Your task to perform on an android device: Go to Wikipedia Image 0: 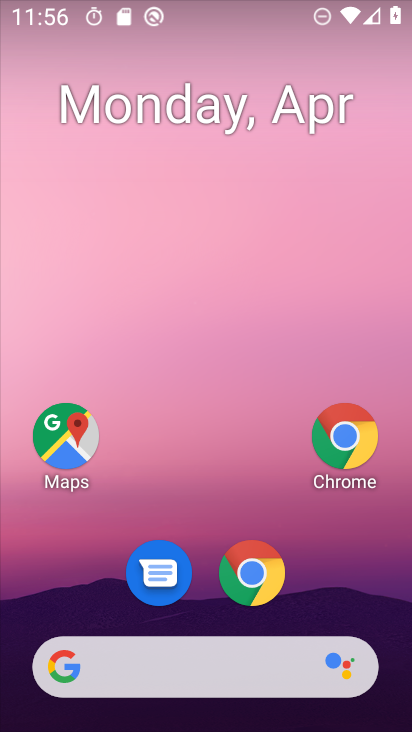
Step 0: drag from (378, 607) to (401, 172)
Your task to perform on an android device: Go to Wikipedia Image 1: 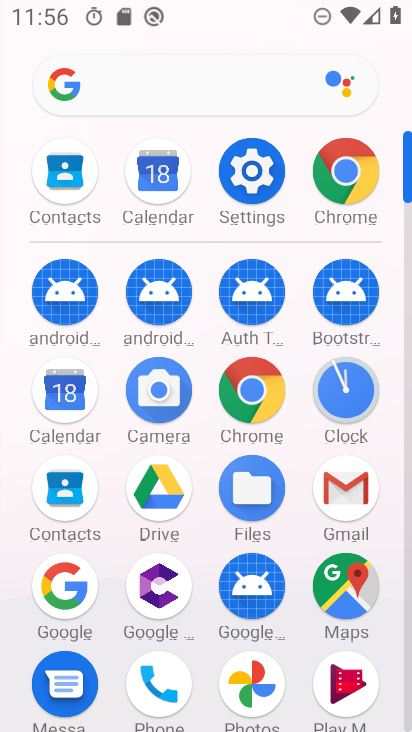
Step 1: click (256, 190)
Your task to perform on an android device: Go to Wikipedia Image 2: 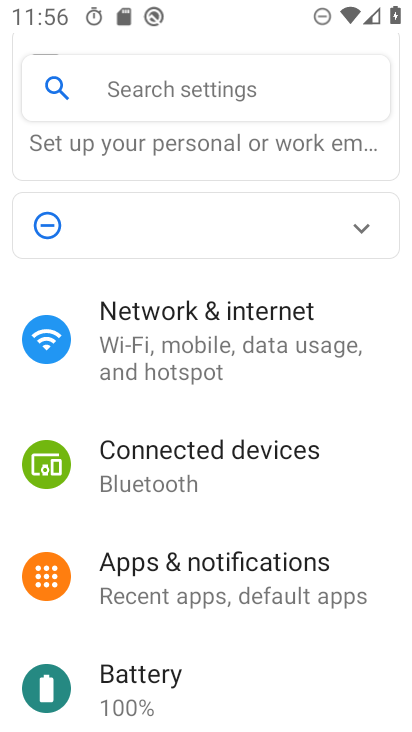
Step 2: drag from (192, 561) to (179, 273)
Your task to perform on an android device: Go to Wikipedia Image 3: 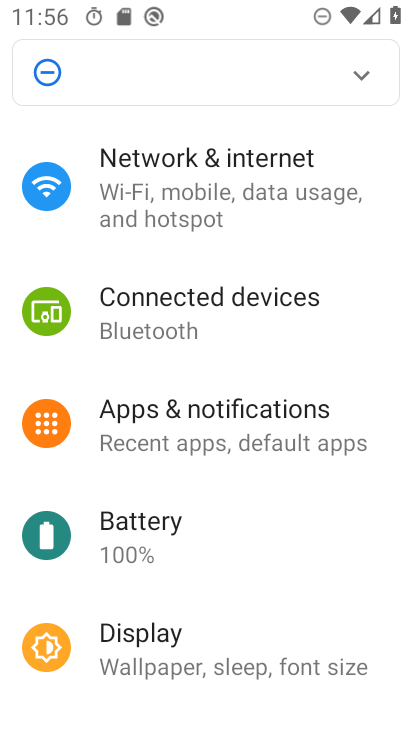
Step 3: drag from (215, 349) to (252, 596)
Your task to perform on an android device: Go to Wikipedia Image 4: 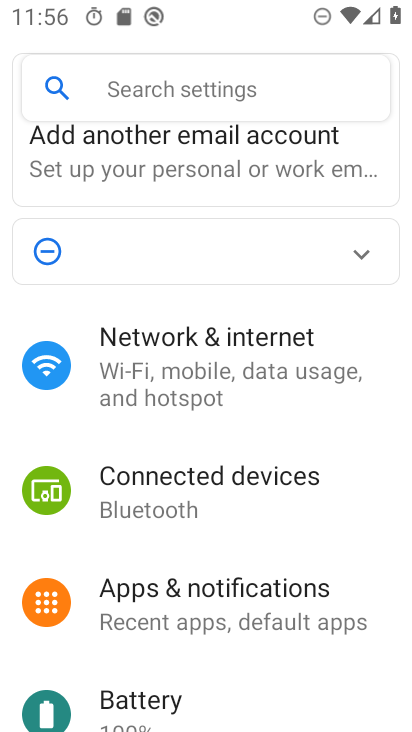
Step 4: press home button
Your task to perform on an android device: Go to Wikipedia Image 5: 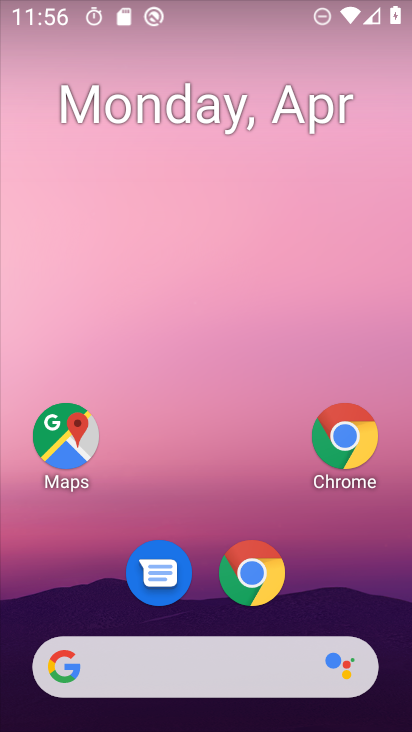
Step 5: click (345, 426)
Your task to perform on an android device: Go to Wikipedia Image 6: 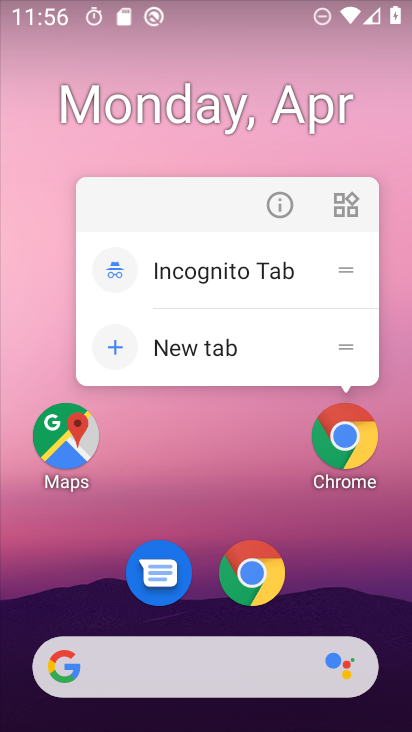
Step 6: click (346, 420)
Your task to perform on an android device: Go to Wikipedia Image 7: 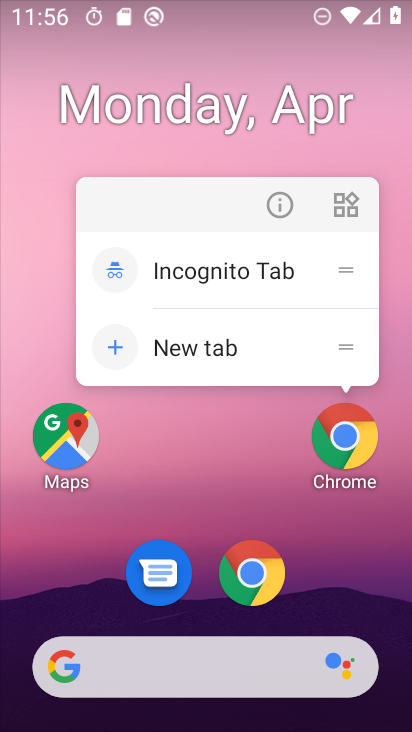
Step 7: click (346, 422)
Your task to perform on an android device: Go to Wikipedia Image 8: 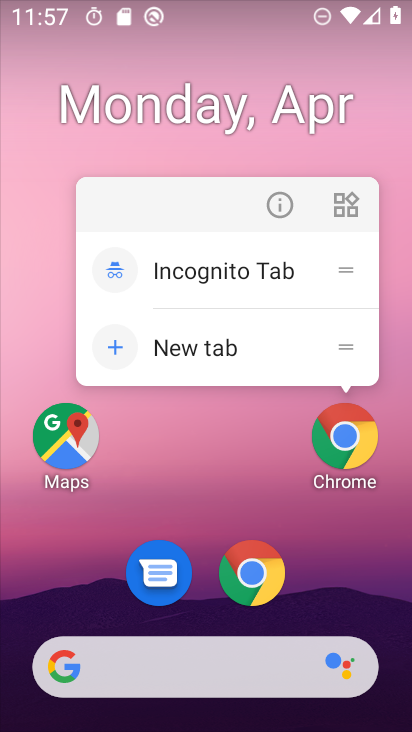
Step 8: click (347, 422)
Your task to perform on an android device: Go to Wikipedia Image 9: 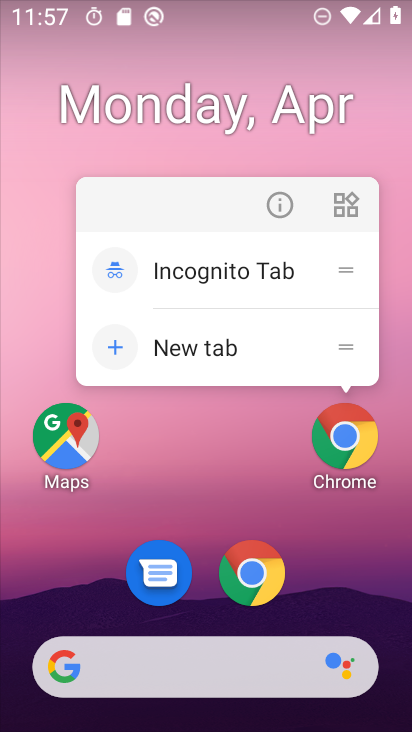
Step 9: click (347, 422)
Your task to perform on an android device: Go to Wikipedia Image 10: 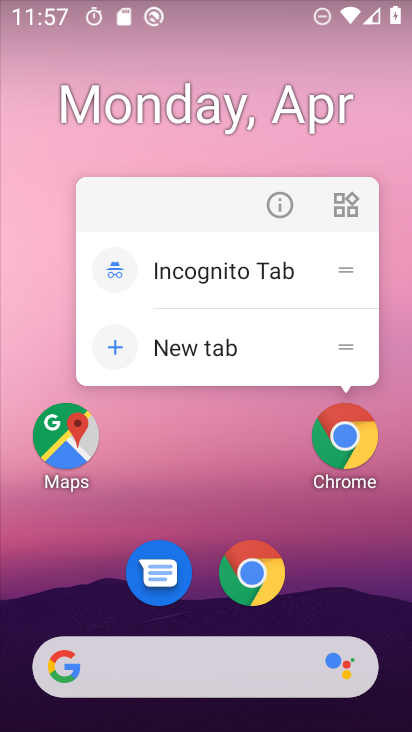
Step 10: click (347, 421)
Your task to perform on an android device: Go to Wikipedia Image 11: 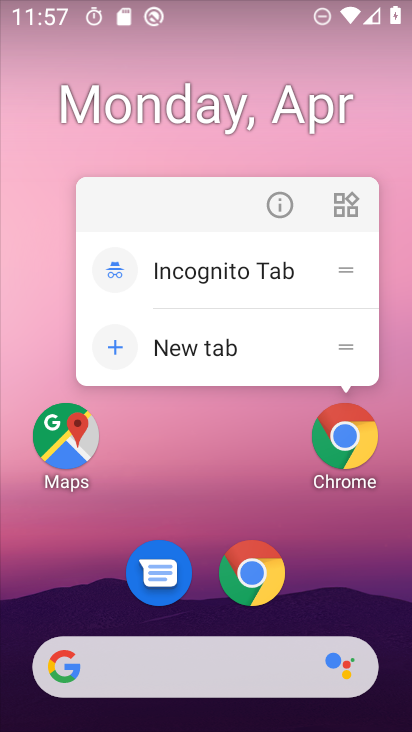
Step 11: click (347, 421)
Your task to perform on an android device: Go to Wikipedia Image 12: 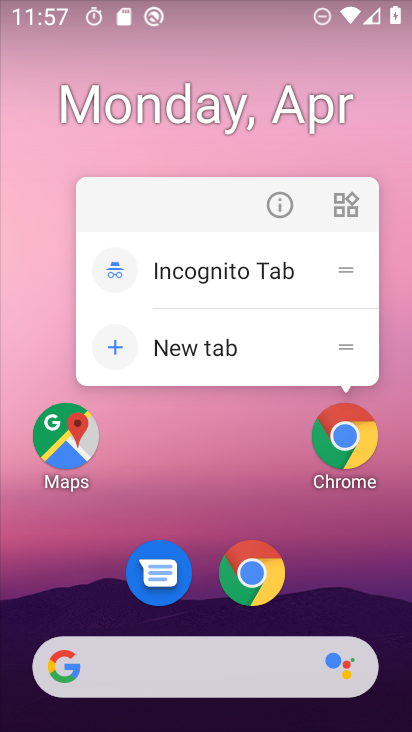
Step 12: click (347, 420)
Your task to perform on an android device: Go to Wikipedia Image 13: 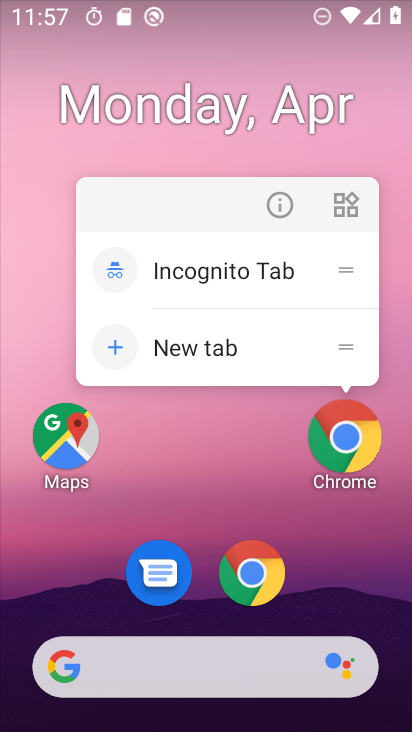
Step 13: click (347, 420)
Your task to perform on an android device: Go to Wikipedia Image 14: 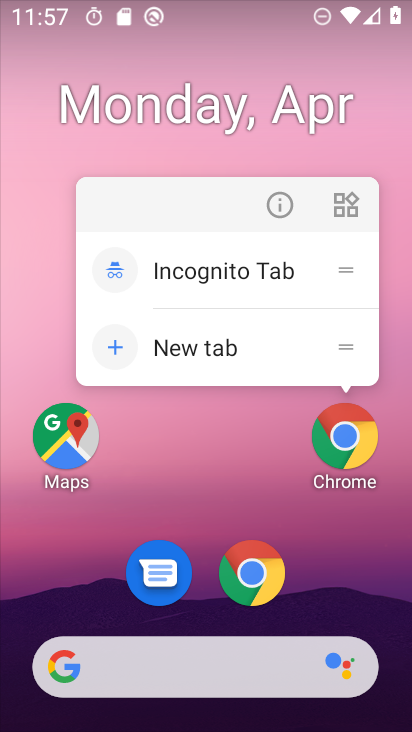
Step 14: click (347, 419)
Your task to perform on an android device: Go to Wikipedia Image 15: 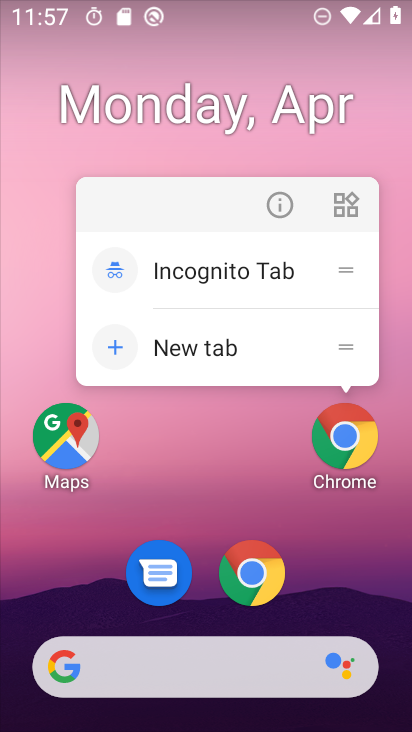
Step 15: click (347, 419)
Your task to perform on an android device: Go to Wikipedia Image 16: 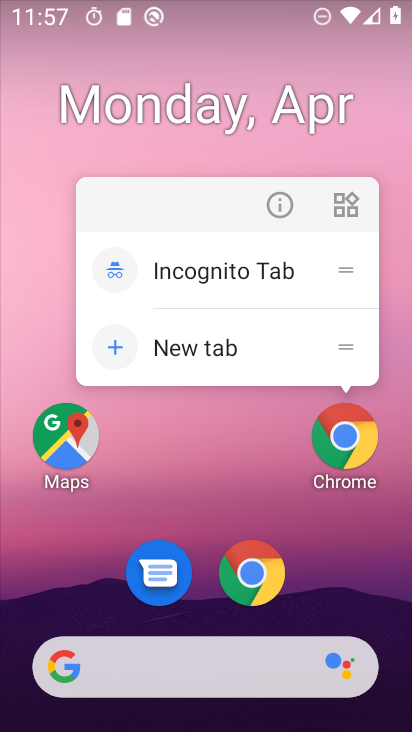
Step 16: click (359, 461)
Your task to perform on an android device: Go to Wikipedia Image 17: 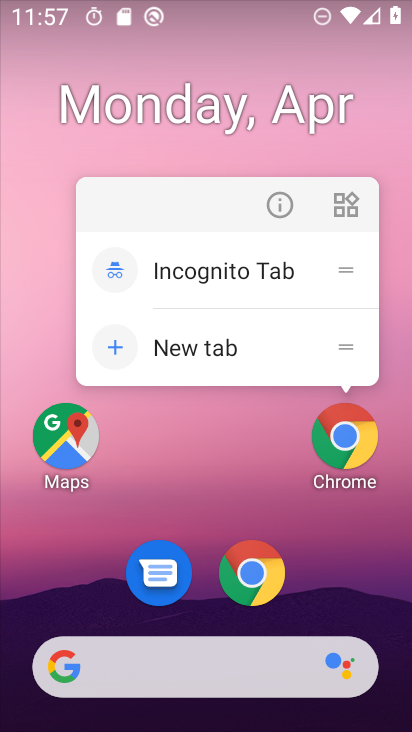
Step 17: click (338, 418)
Your task to perform on an android device: Go to Wikipedia Image 18: 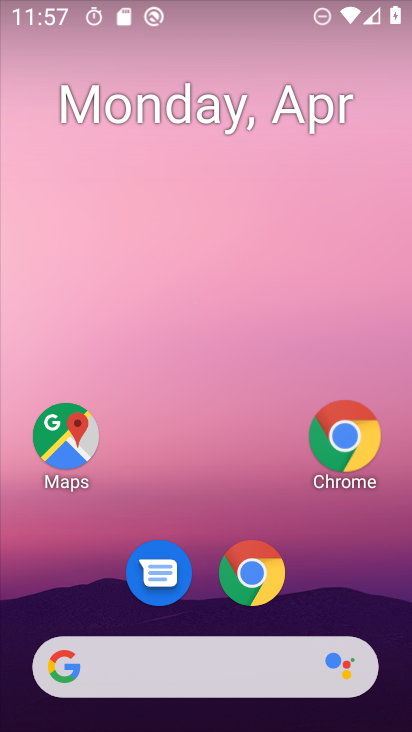
Step 18: click (348, 436)
Your task to perform on an android device: Go to Wikipedia Image 19: 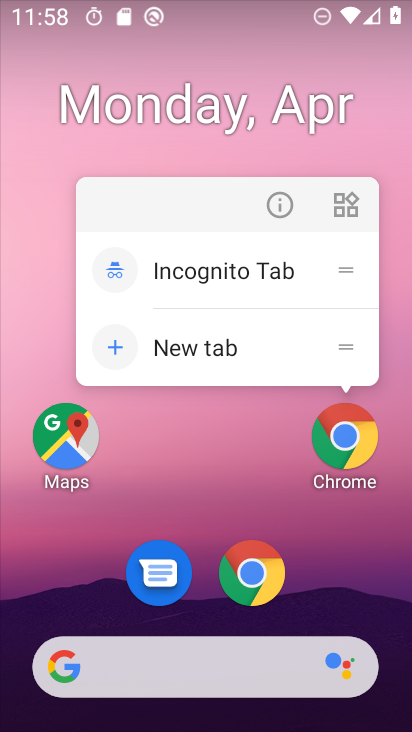
Step 19: click (352, 437)
Your task to perform on an android device: Go to Wikipedia Image 20: 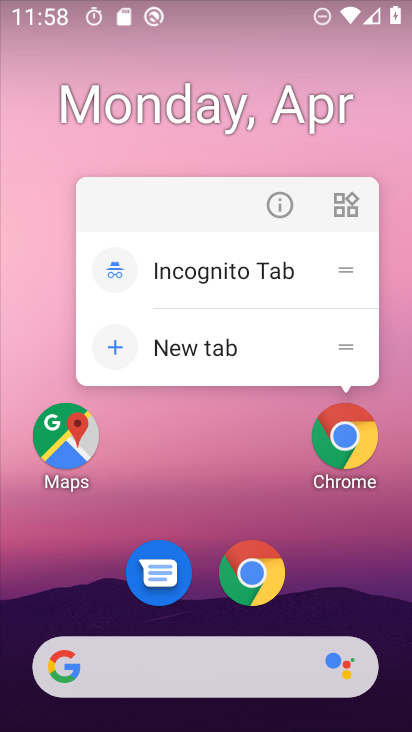
Step 20: click (351, 419)
Your task to perform on an android device: Go to Wikipedia Image 21: 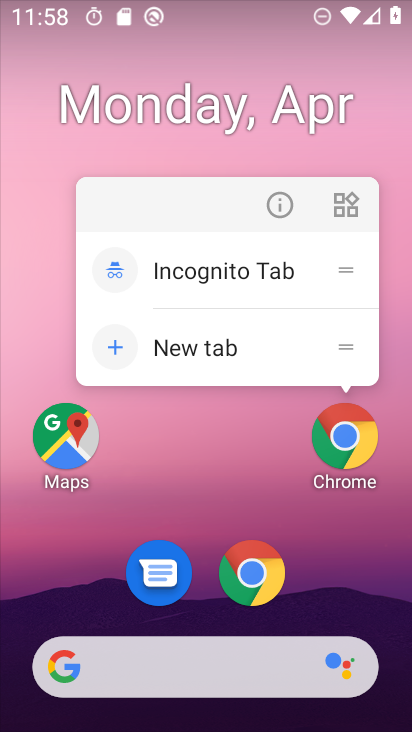
Step 21: click (350, 418)
Your task to perform on an android device: Go to Wikipedia Image 22: 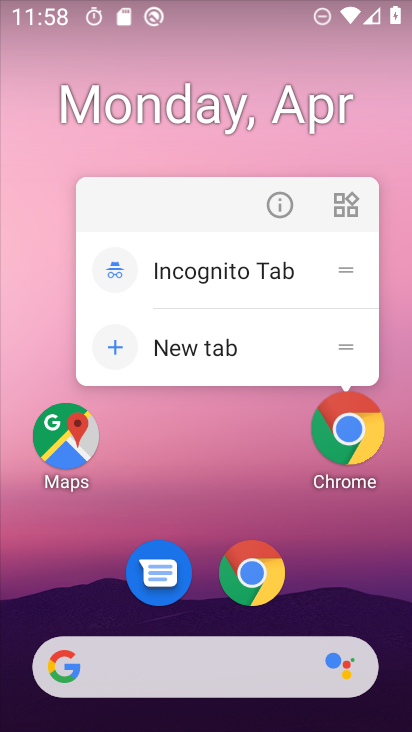
Step 22: click (345, 410)
Your task to perform on an android device: Go to Wikipedia Image 23: 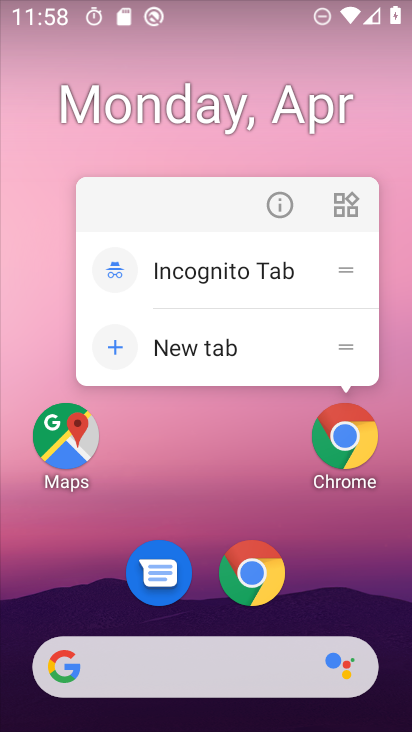
Step 23: click (331, 451)
Your task to perform on an android device: Go to Wikipedia Image 24: 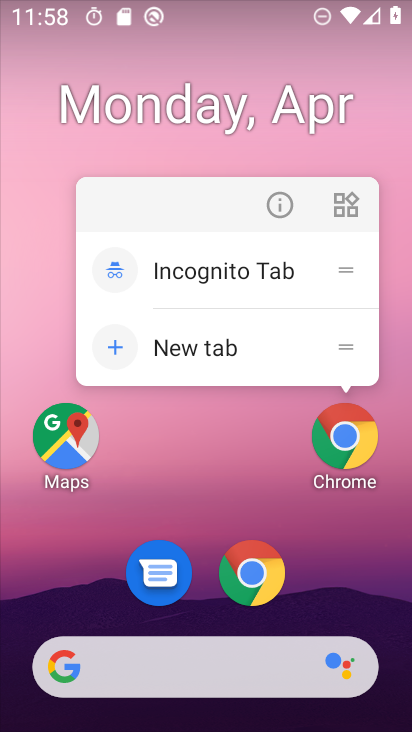
Step 24: click (345, 435)
Your task to perform on an android device: Go to Wikipedia Image 25: 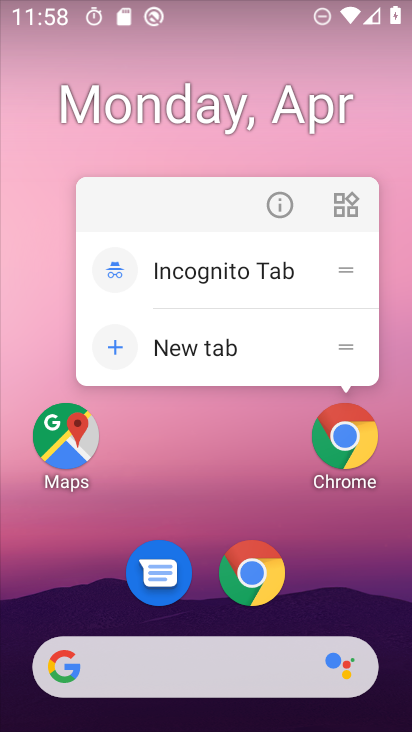
Step 25: click (386, 112)
Your task to perform on an android device: Go to Wikipedia Image 26: 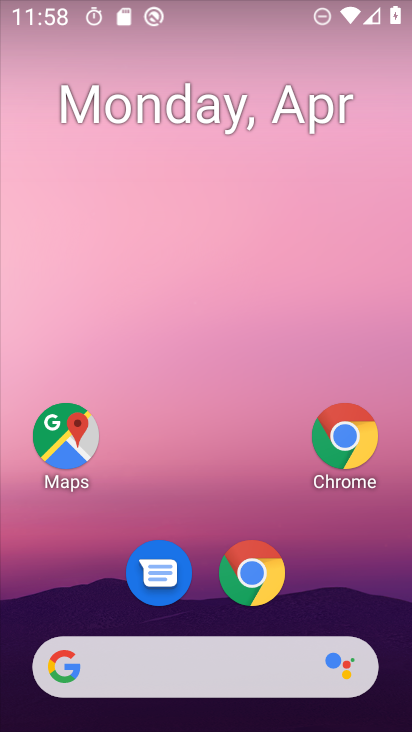
Step 26: click (368, 451)
Your task to perform on an android device: Go to Wikipedia Image 27: 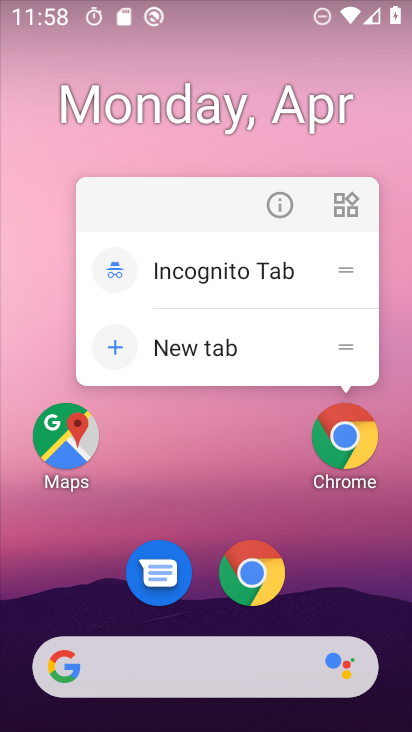
Step 27: click (236, 591)
Your task to perform on an android device: Go to Wikipedia Image 28: 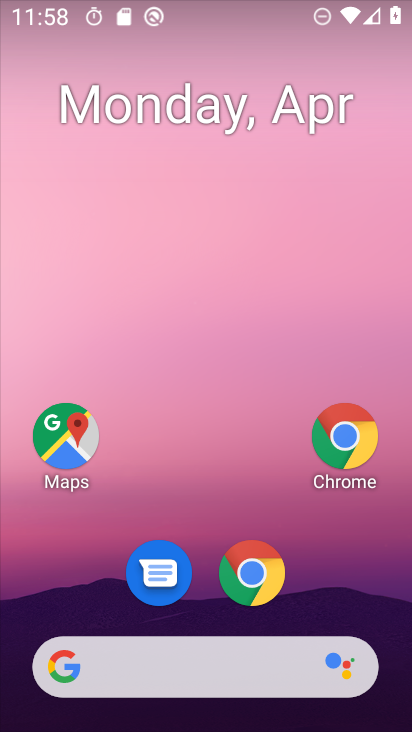
Step 28: click (250, 572)
Your task to perform on an android device: Go to Wikipedia Image 29: 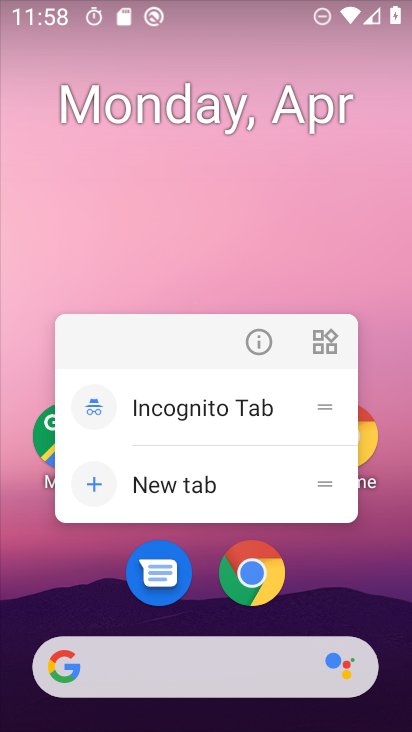
Step 29: click (361, 646)
Your task to perform on an android device: Go to Wikipedia Image 30: 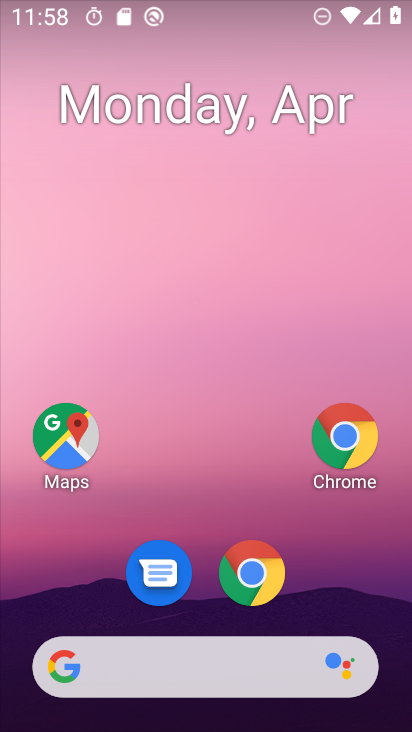
Step 30: drag from (350, 614) to (410, 170)
Your task to perform on an android device: Go to Wikipedia Image 31: 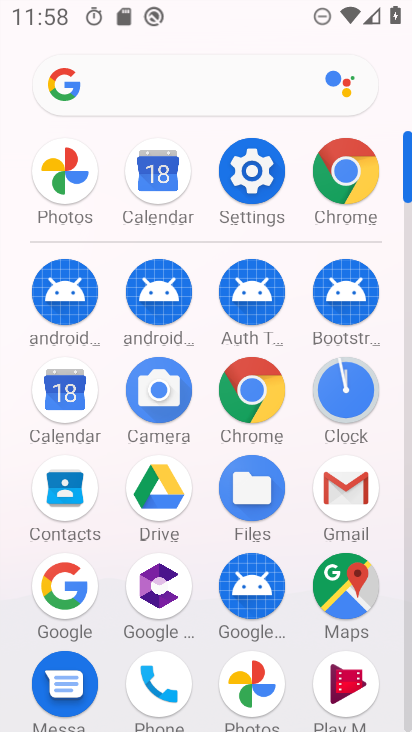
Step 31: click (343, 172)
Your task to perform on an android device: Go to Wikipedia Image 32: 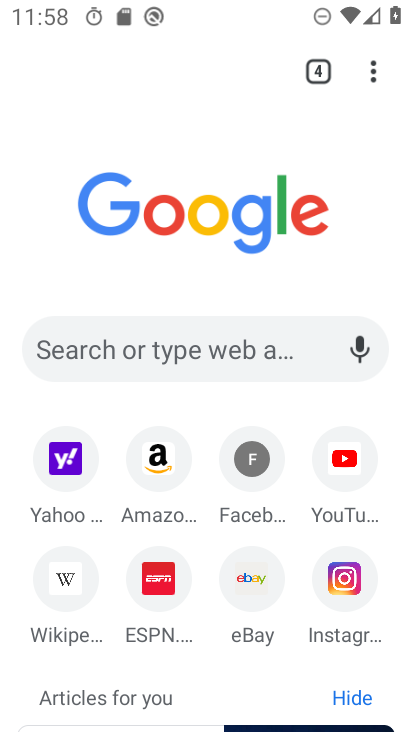
Step 32: click (64, 583)
Your task to perform on an android device: Go to Wikipedia Image 33: 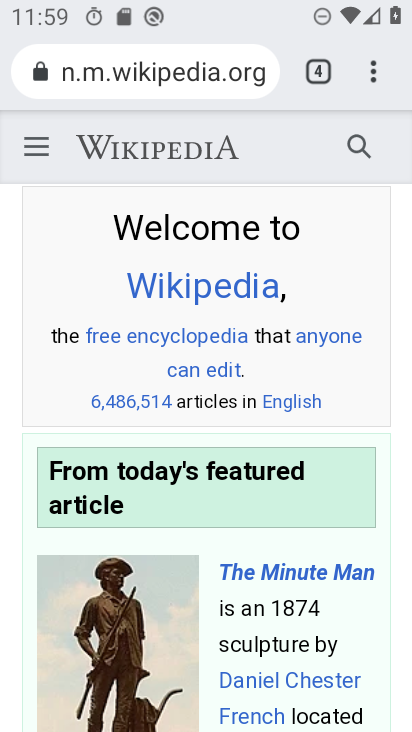
Step 33: task complete